Your task to perform on an android device: open app "NewsBreak: Local News & Alerts" Image 0: 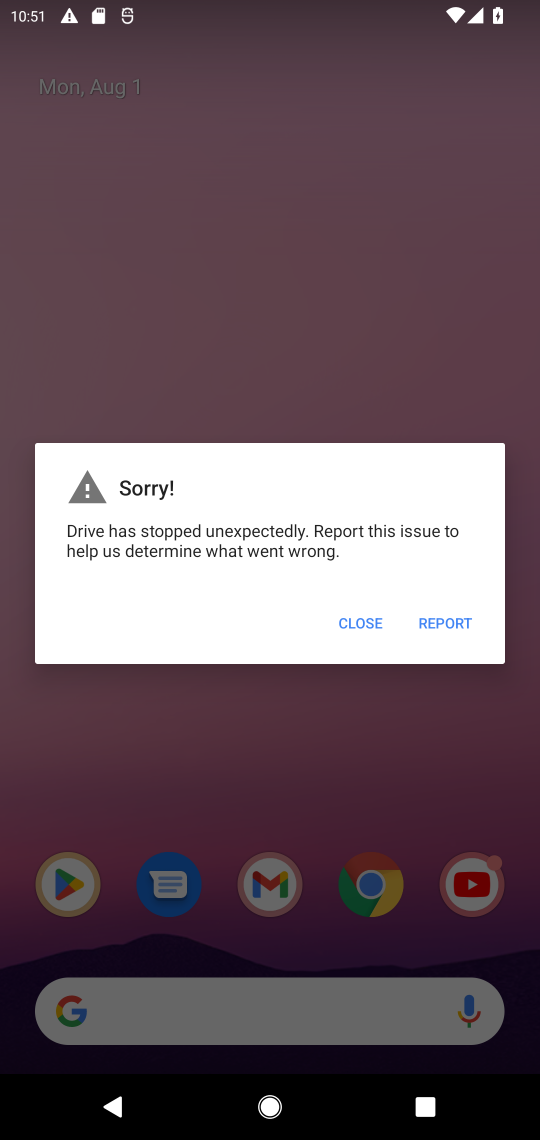
Step 0: click (63, 881)
Your task to perform on an android device: open app "NewsBreak: Local News & Alerts" Image 1: 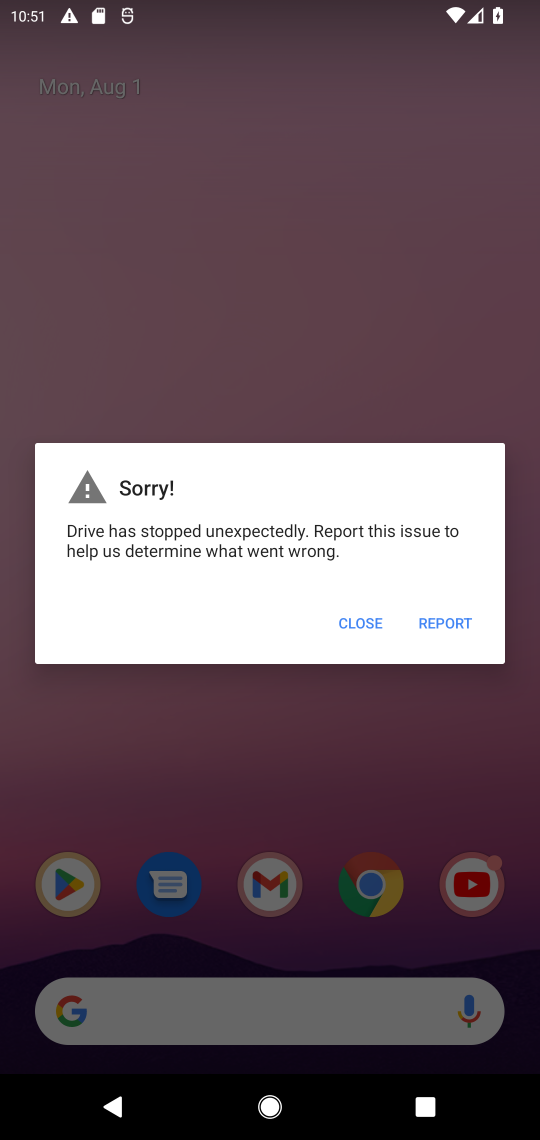
Step 1: click (369, 619)
Your task to perform on an android device: open app "NewsBreak: Local News & Alerts" Image 2: 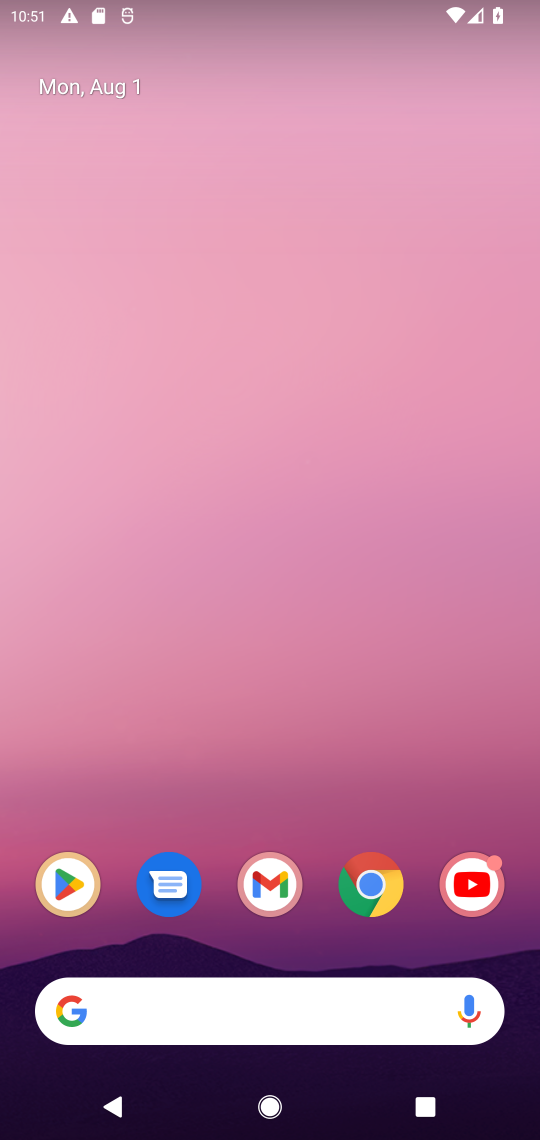
Step 2: click (49, 877)
Your task to perform on an android device: open app "NewsBreak: Local News & Alerts" Image 3: 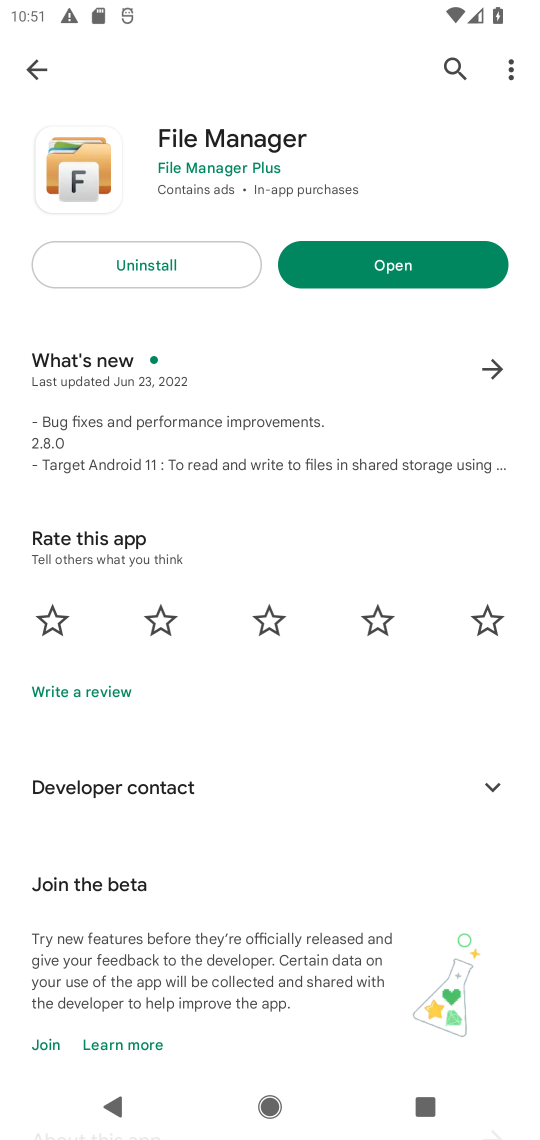
Step 3: click (463, 64)
Your task to perform on an android device: open app "NewsBreak: Local News & Alerts" Image 4: 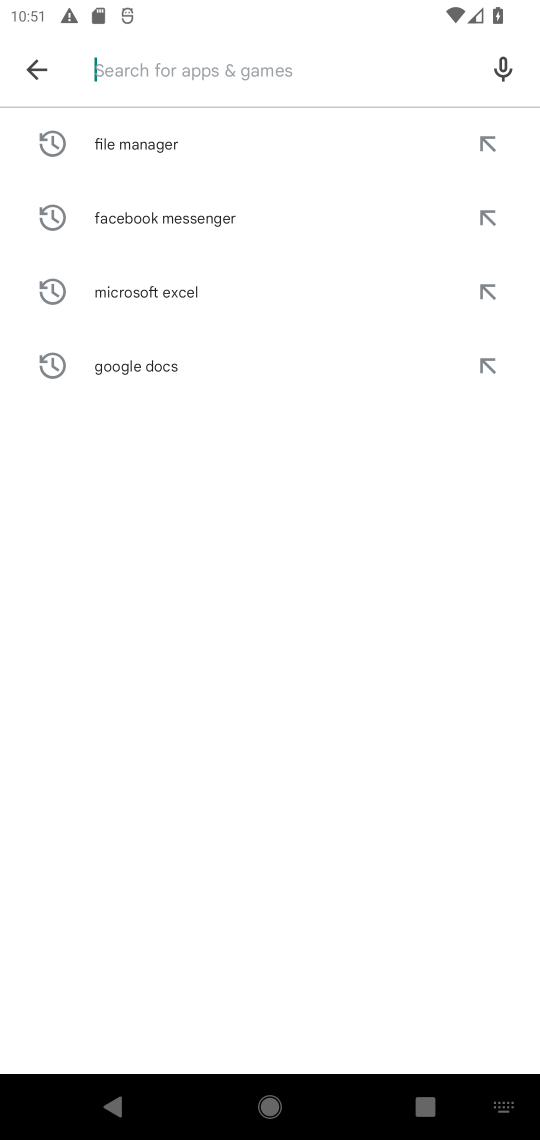
Step 4: type "newsbreak: local news & alerts"
Your task to perform on an android device: open app "NewsBreak: Local News & Alerts" Image 5: 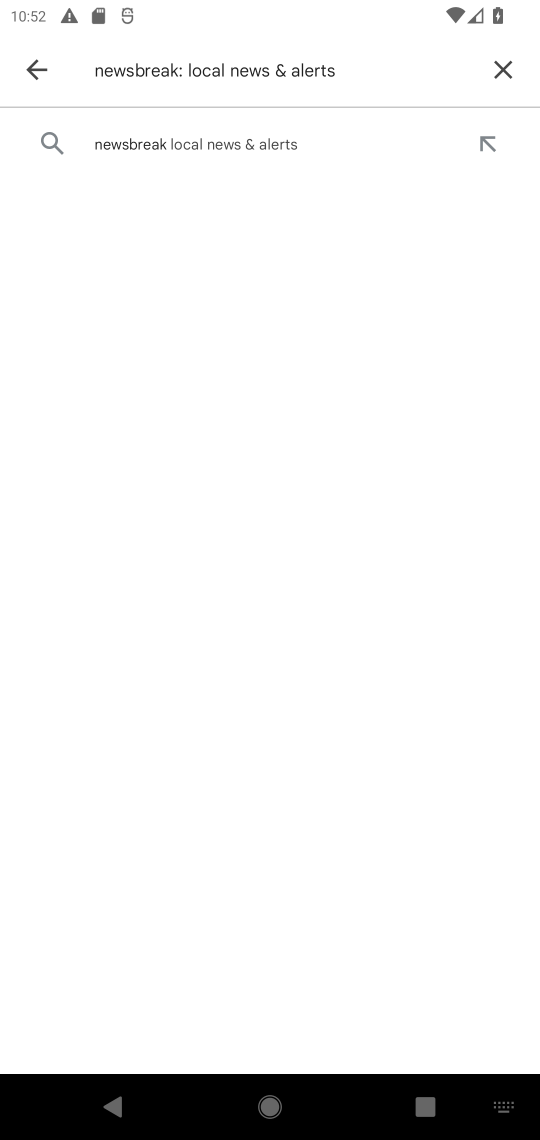
Step 5: click (264, 132)
Your task to perform on an android device: open app "NewsBreak: Local News & Alerts" Image 6: 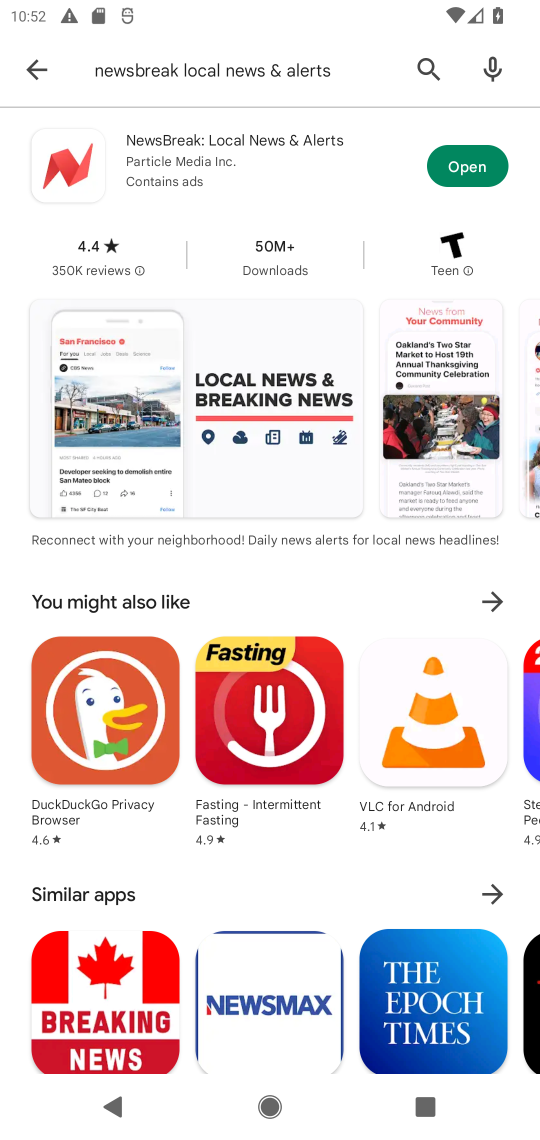
Step 6: click (280, 141)
Your task to perform on an android device: open app "NewsBreak: Local News & Alerts" Image 7: 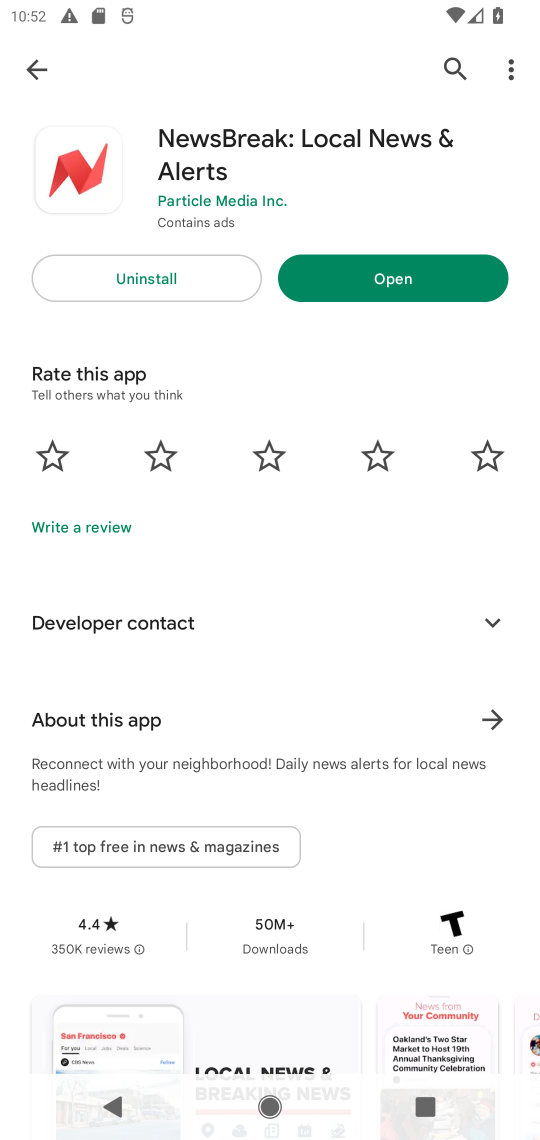
Step 7: click (386, 271)
Your task to perform on an android device: open app "NewsBreak: Local News & Alerts" Image 8: 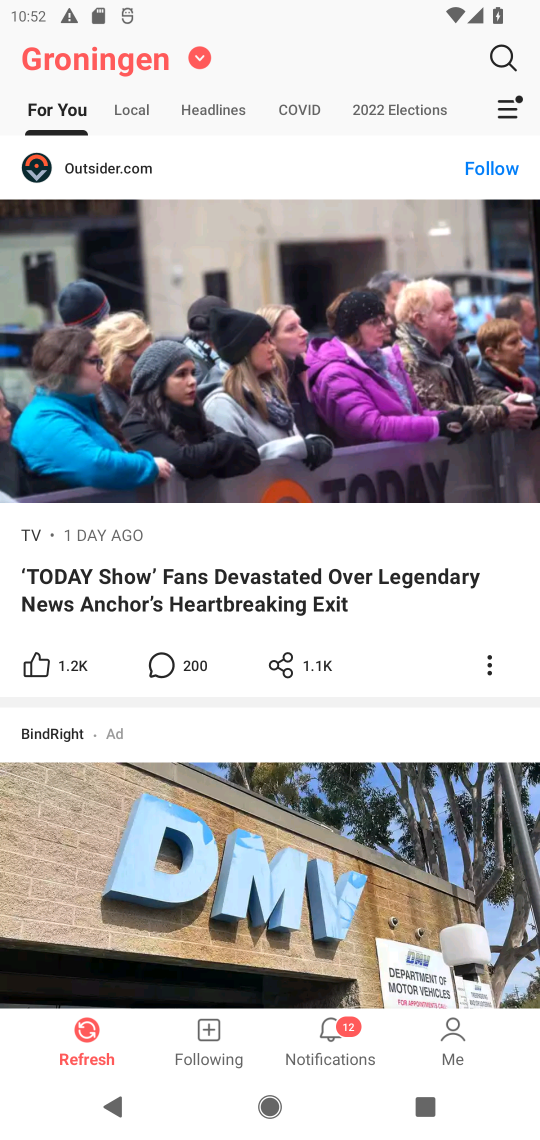
Step 8: task complete